Your task to perform on an android device: add a contact in the contacts app Image 0: 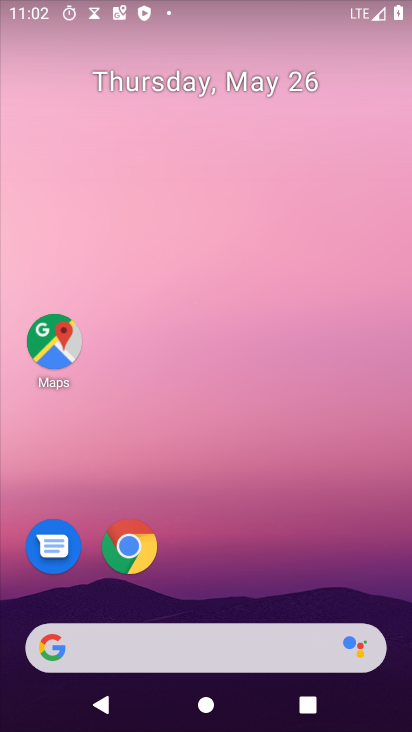
Step 0: drag from (349, 514) to (353, 238)
Your task to perform on an android device: add a contact in the contacts app Image 1: 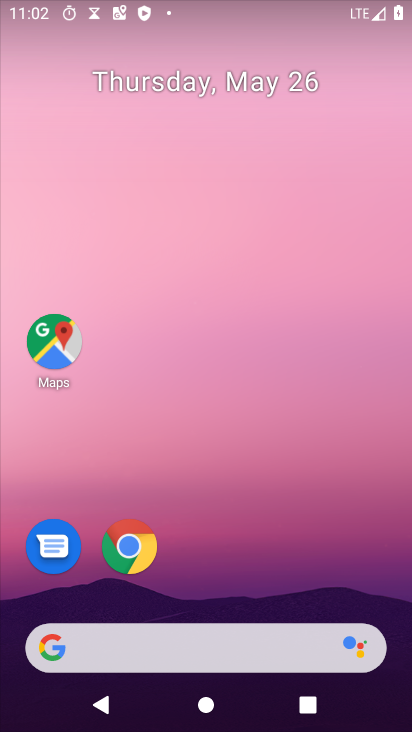
Step 1: drag from (345, 558) to (340, 165)
Your task to perform on an android device: add a contact in the contacts app Image 2: 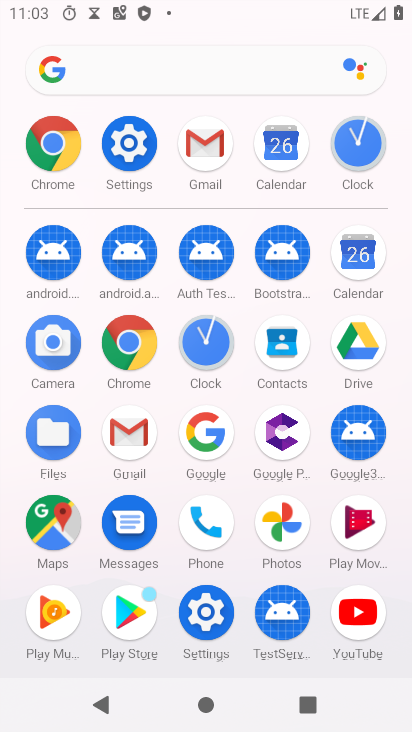
Step 2: click (276, 346)
Your task to perform on an android device: add a contact in the contacts app Image 3: 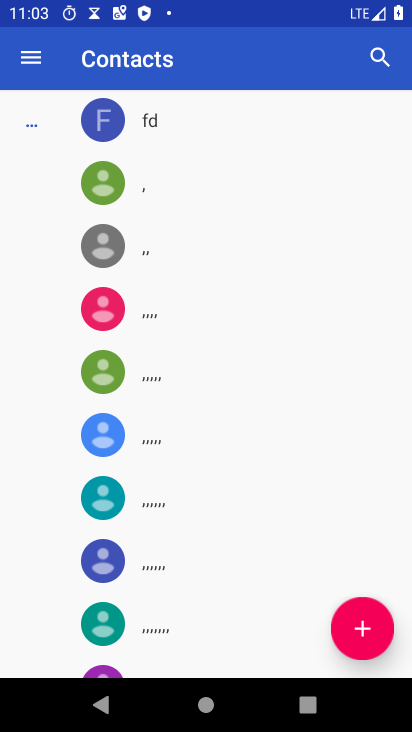
Step 3: click (355, 647)
Your task to perform on an android device: add a contact in the contacts app Image 4: 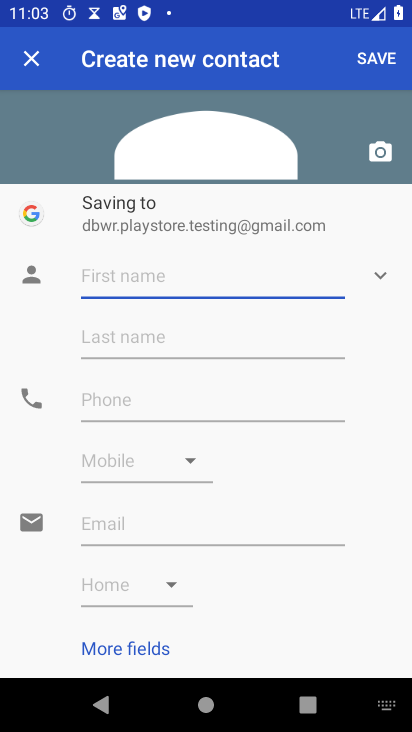
Step 4: click (223, 275)
Your task to perform on an android device: add a contact in the contacts app Image 5: 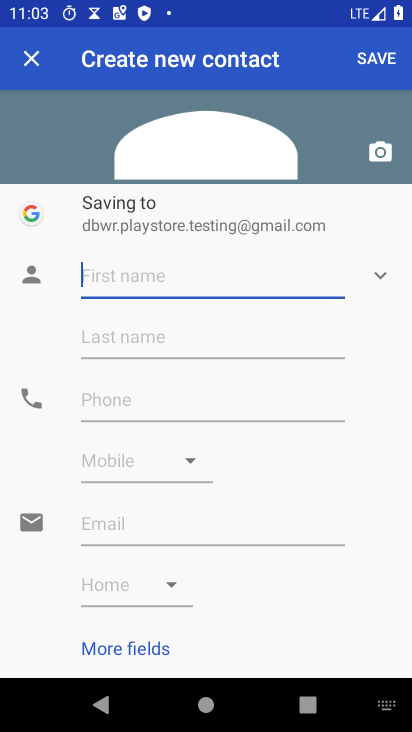
Step 5: type "wndkd"
Your task to perform on an android device: add a contact in the contacts app Image 6: 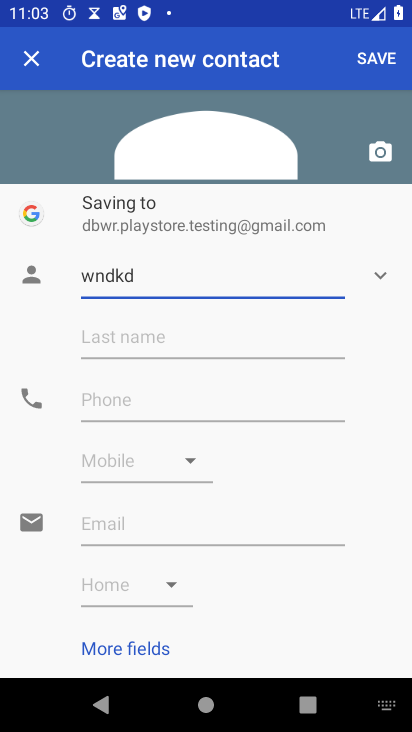
Step 6: click (130, 402)
Your task to perform on an android device: add a contact in the contacts app Image 7: 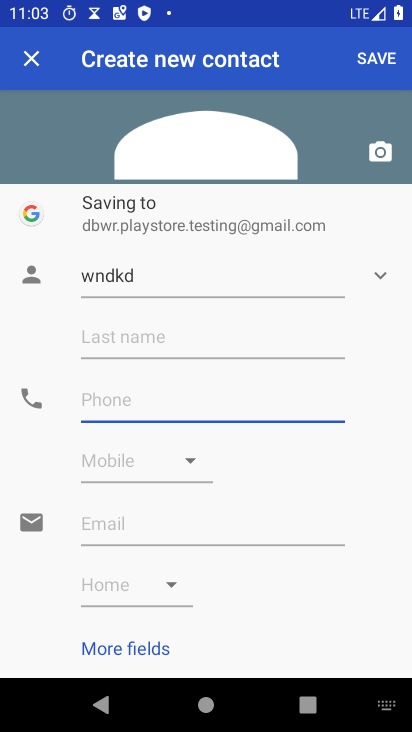
Step 7: type "293947498"
Your task to perform on an android device: add a contact in the contacts app Image 8: 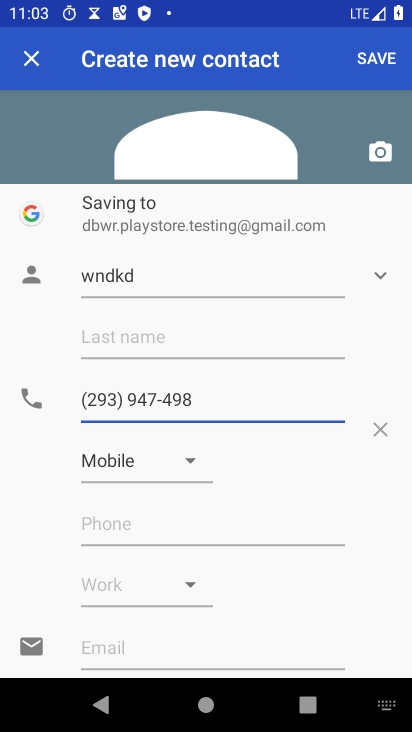
Step 8: click (389, 58)
Your task to perform on an android device: add a contact in the contacts app Image 9: 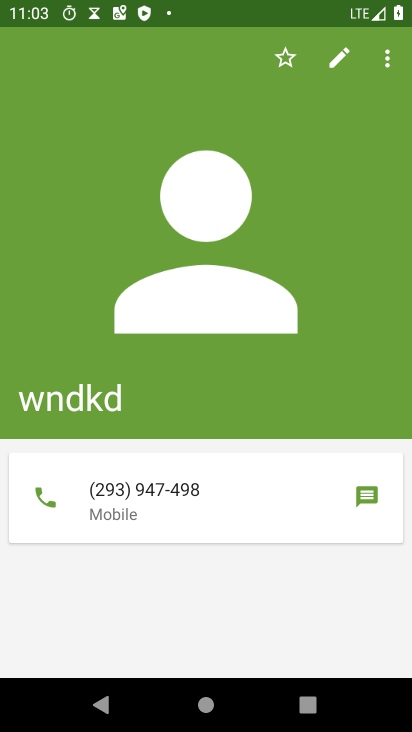
Step 9: task complete